Your task to perform on an android device: find which apps use the phone's location Image 0: 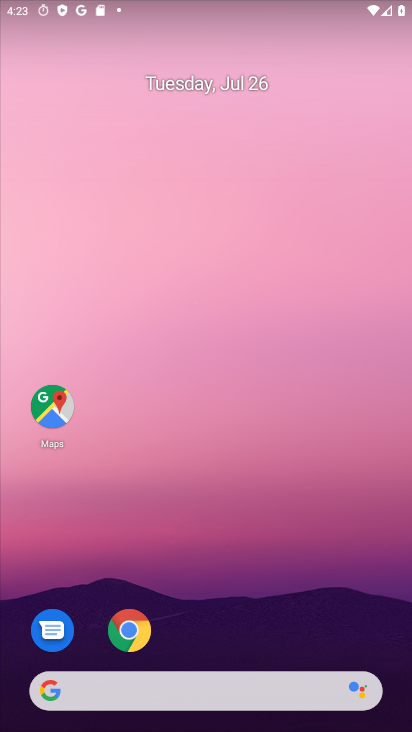
Step 0: drag from (312, 618) to (296, 36)
Your task to perform on an android device: find which apps use the phone's location Image 1: 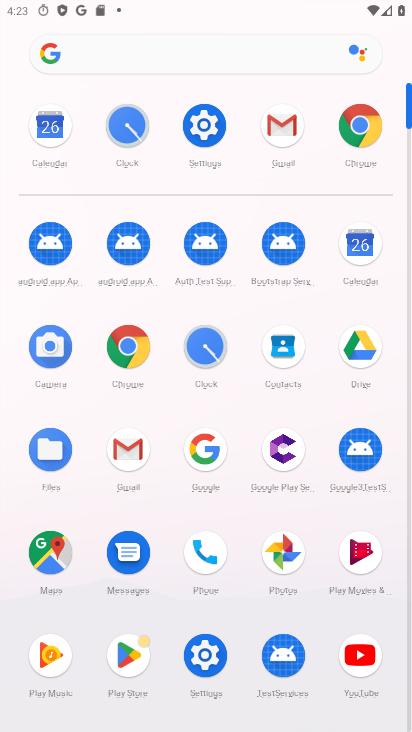
Step 1: click (214, 137)
Your task to perform on an android device: find which apps use the phone's location Image 2: 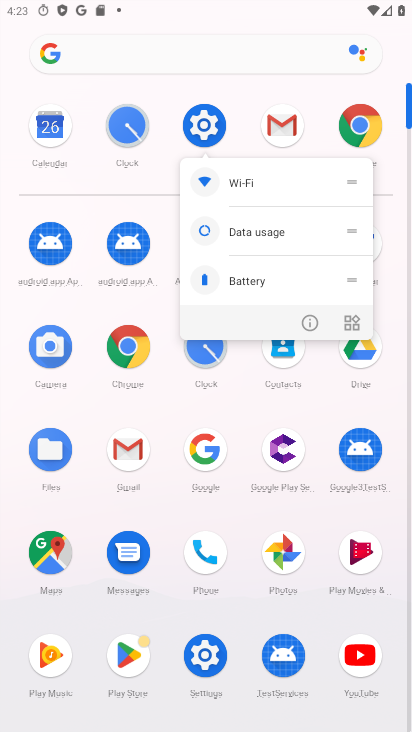
Step 2: click (203, 129)
Your task to perform on an android device: find which apps use the phone's location Image 3: 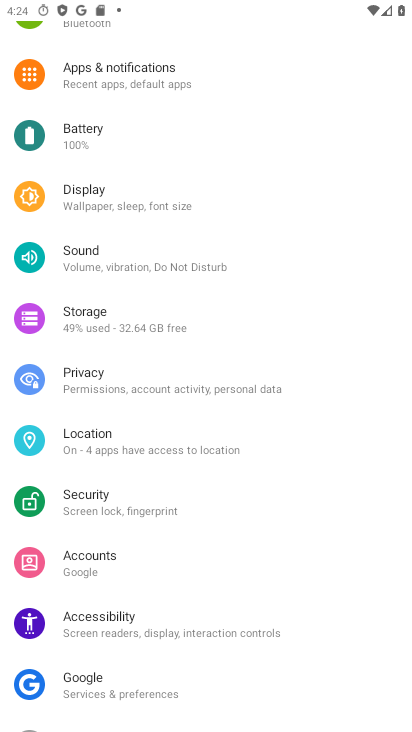
Step 3: click (107, 434)
Your task to perform on an android device: find which apps use the phone's location Image 4: 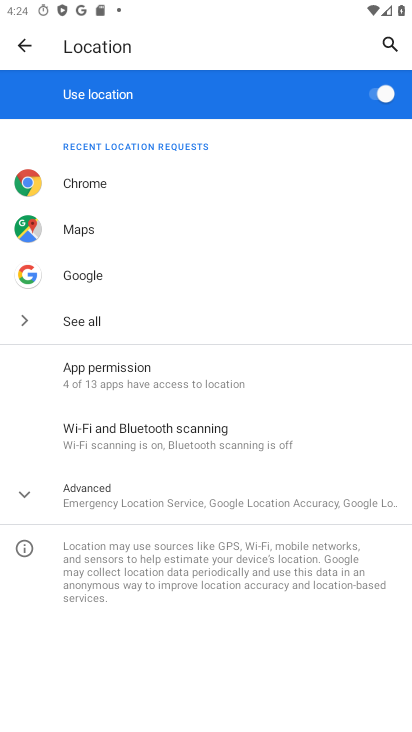
Step 4: click (89, 368)
Your task to perform on an android device: find which apps use the phone's location Image 5: 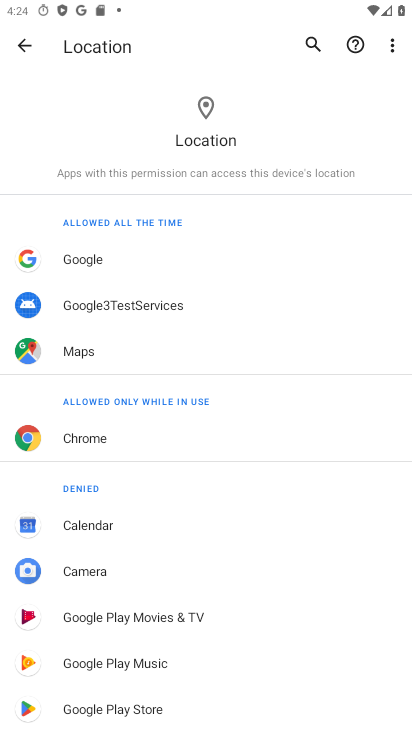
Step 5: task complete